Your task to perform on an android device: check google app version Image 0: 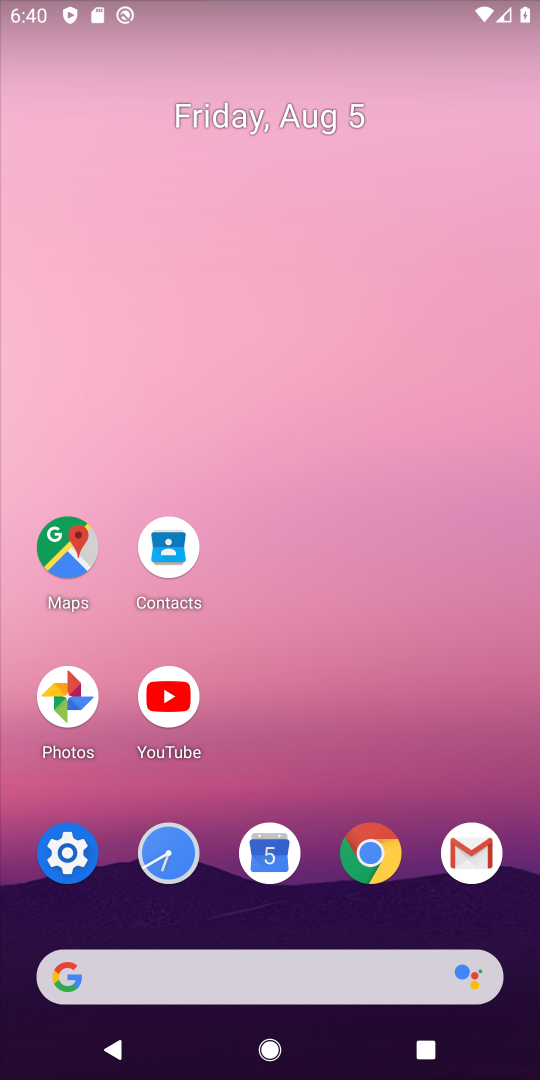
Step 0: click (61, 973)
Your task to perform on an android device: check google app version Image 1: 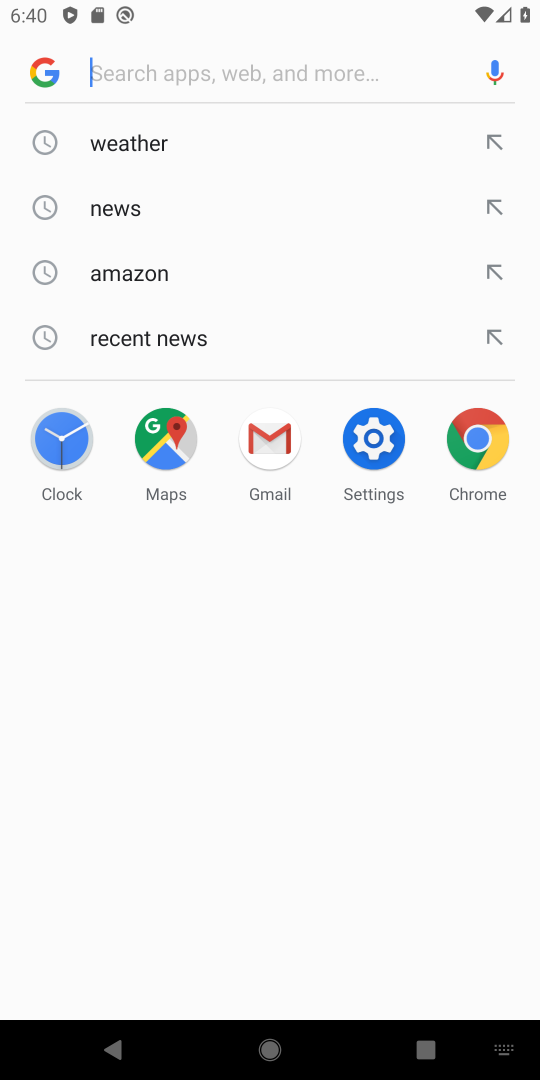
Step 1: click (42, 75)
Your task to perform on an android device: check google app version Image 2: 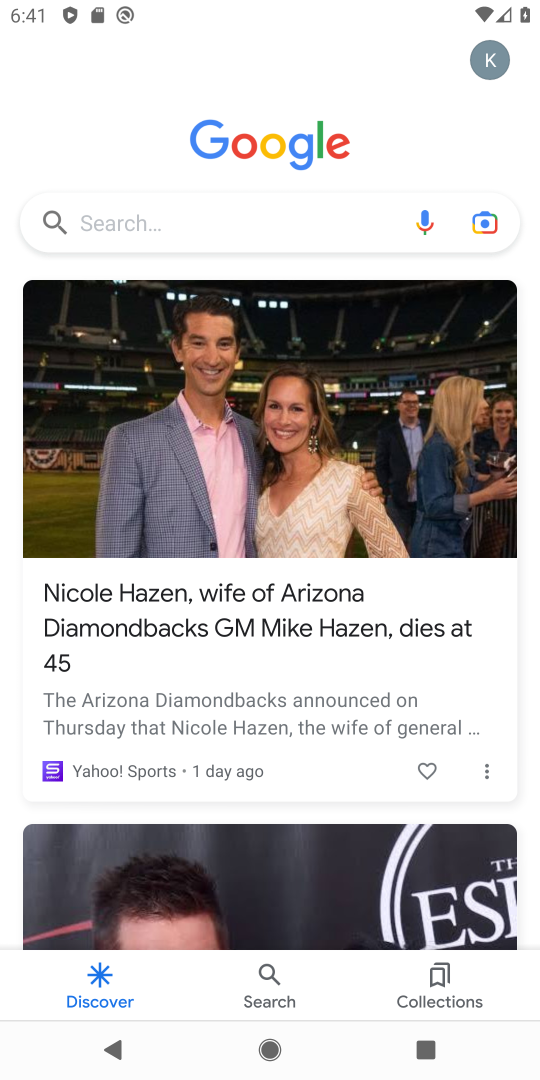
Step 2: click (485, 62)
Your task to perform on an android device: check google app version Image 3: 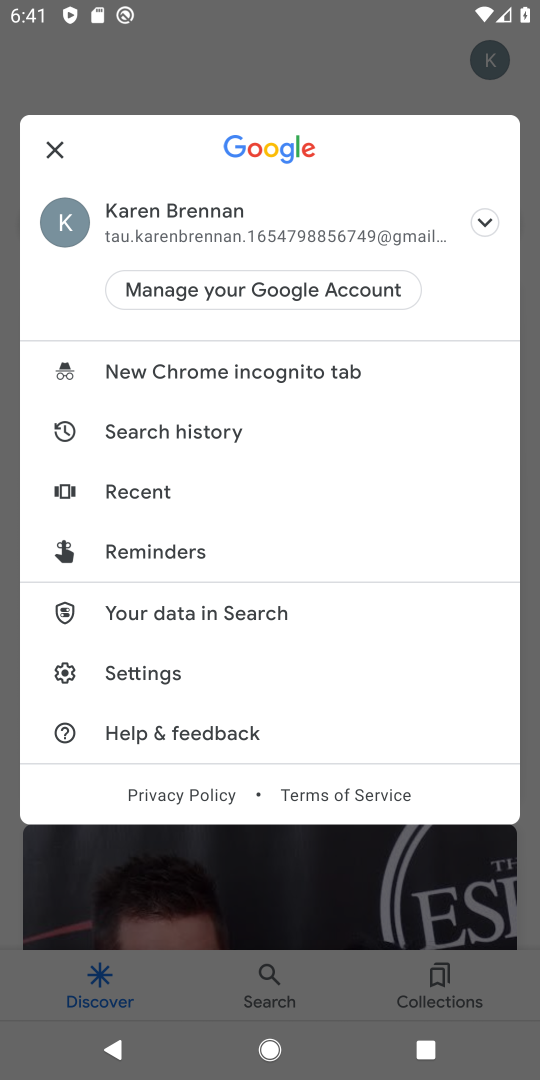
Step 3: click (155, 669)
Your task to perform on an android device: check google app version Image 4: 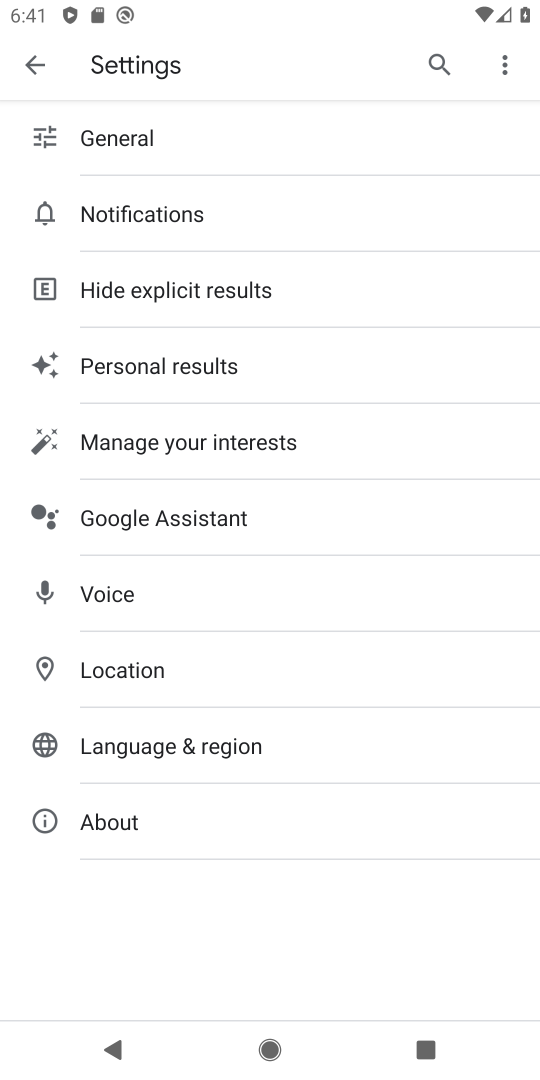
Step 4: click (173, 816)
Your task to perform on an android device: check google app version Image 5: 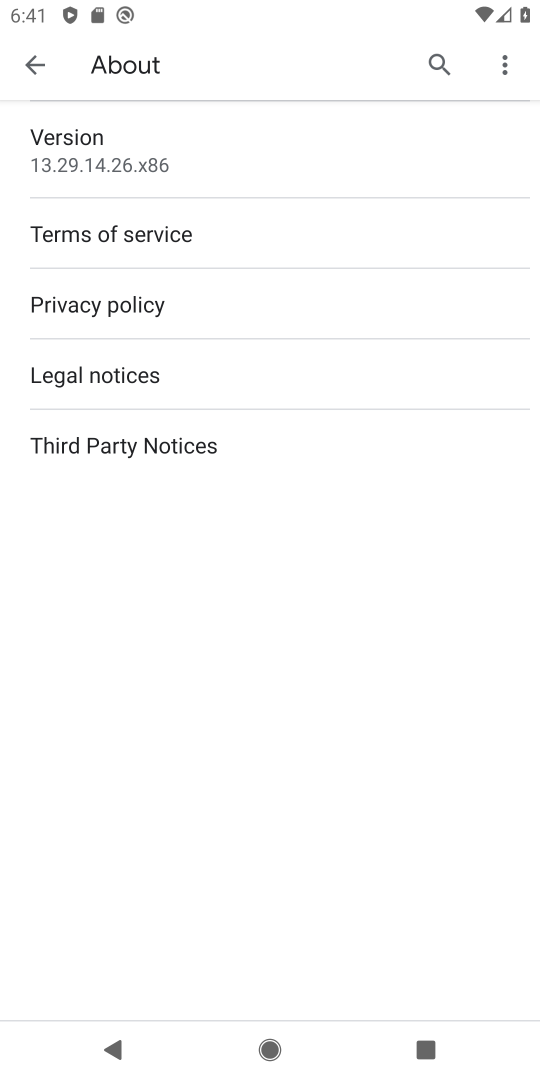
Step 5: task complete